Your task to perform on an android device: turn off notifications settings in the gmail app Image 0: 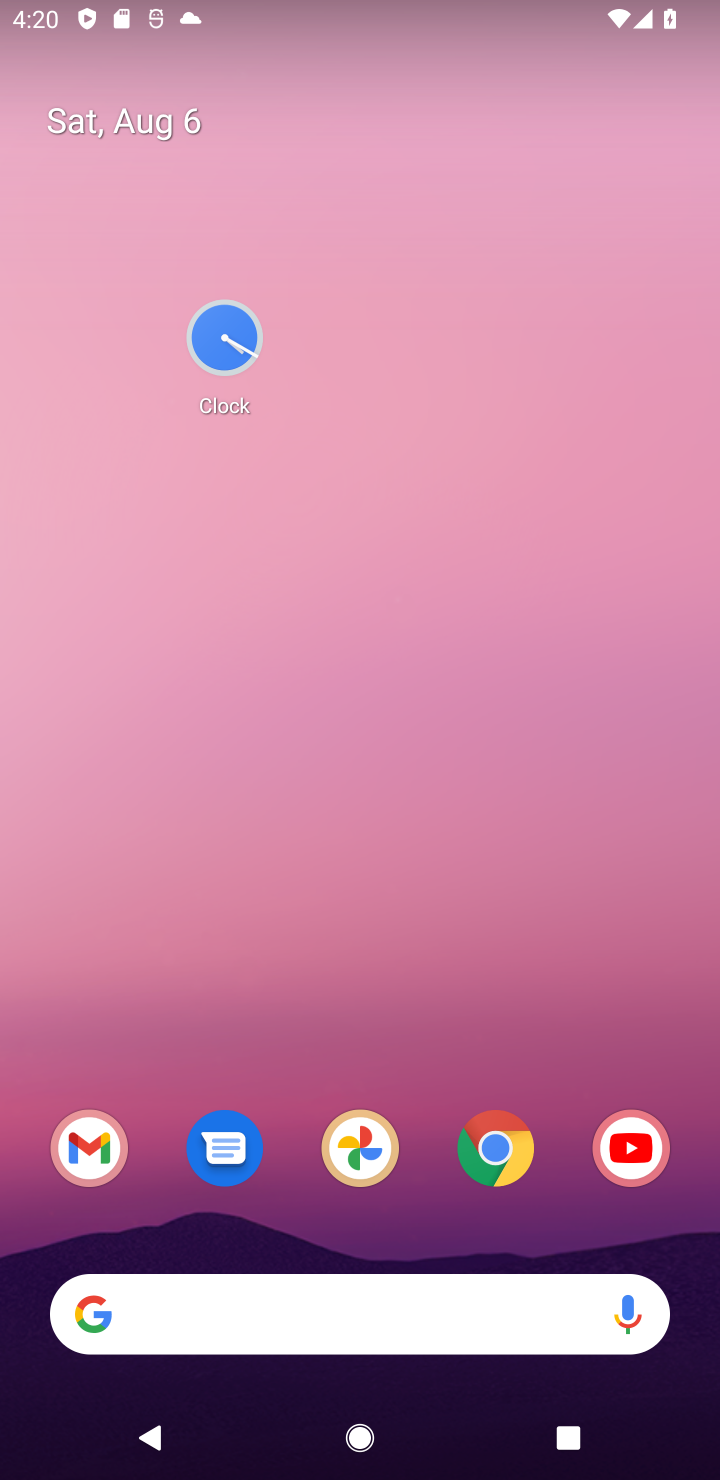
Step 0: drag from (408, 1238) to (401, 5)
Your task to perform on an android device: turn off notifications settings in the gmail app Image 1: 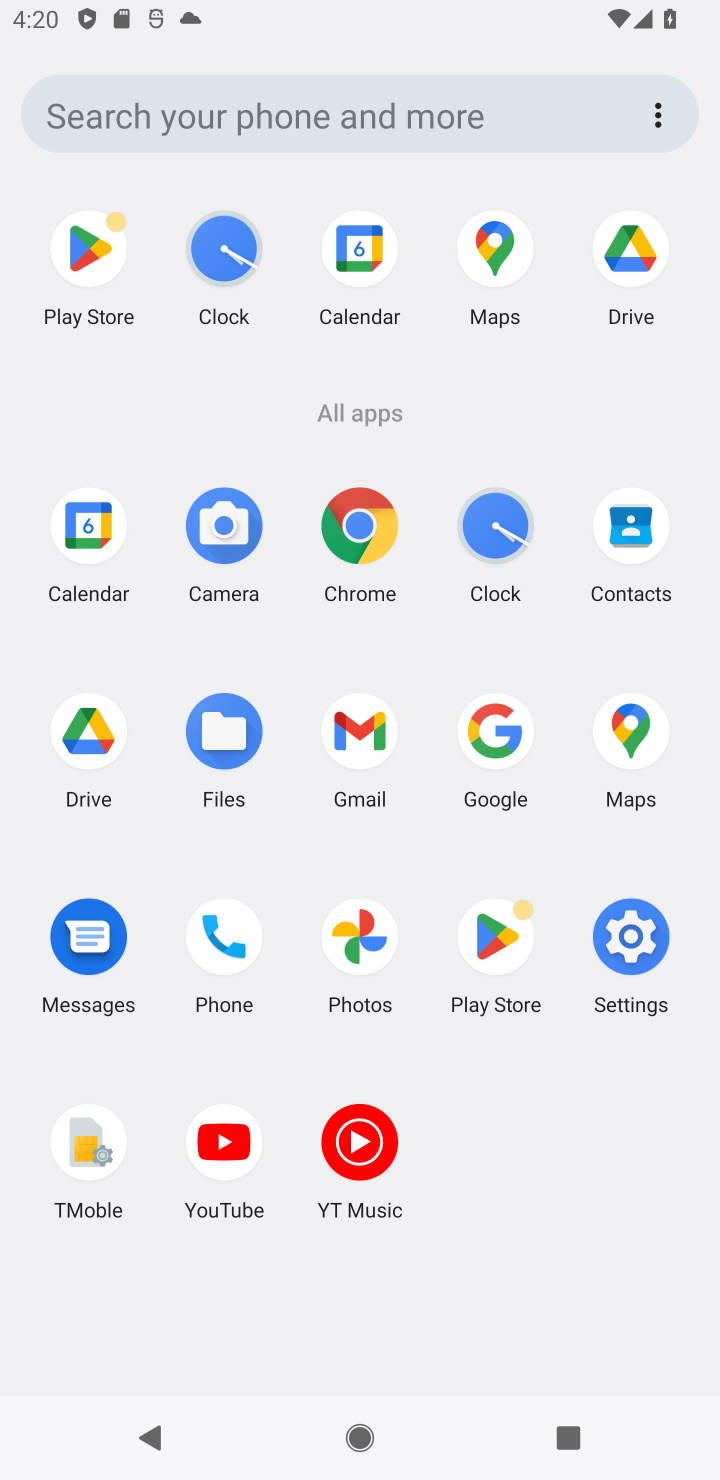
Step 1: click (350, 733)
Your task to perform on an android device: turn off notifications settings in the gmail app Image 2: 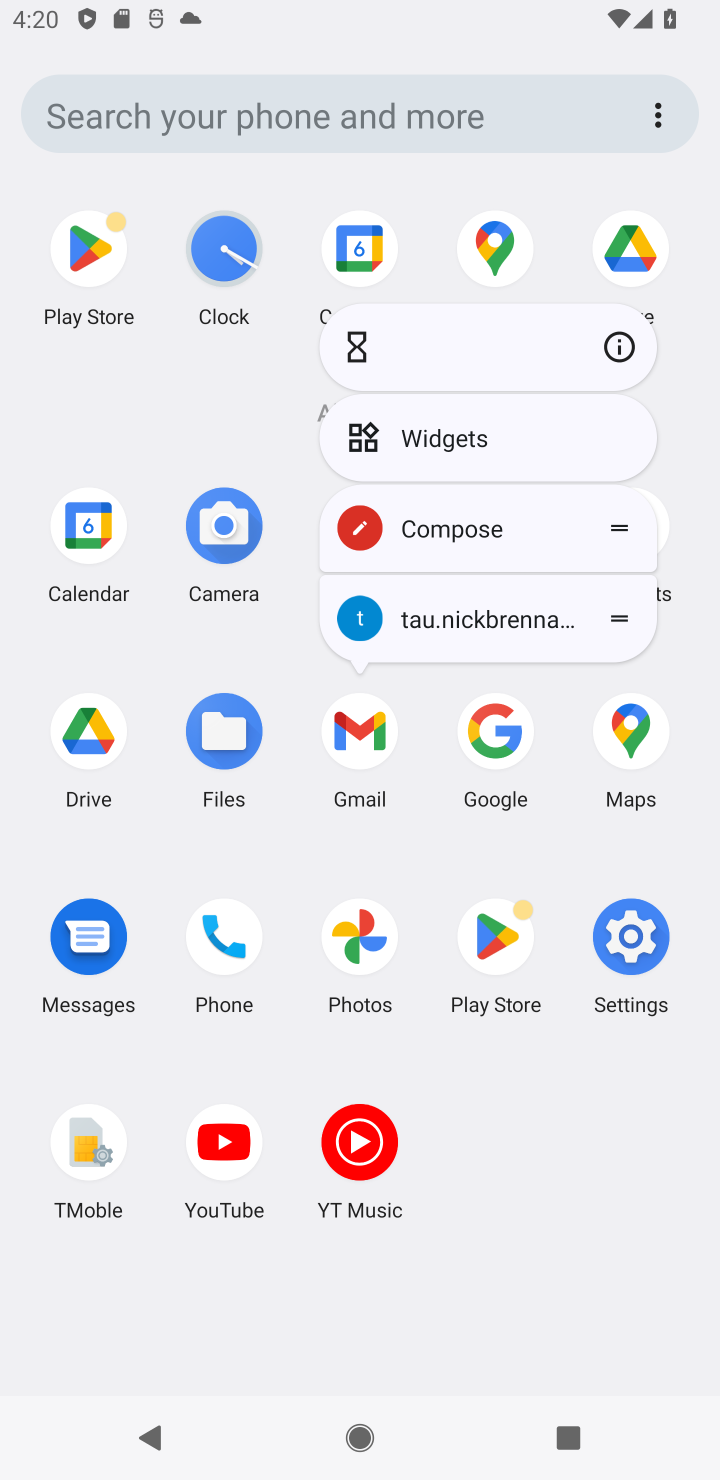
Step 2: click (627, 336)
Your task to perform on an android device: turn off notifications settings in the gmail app Image 3: 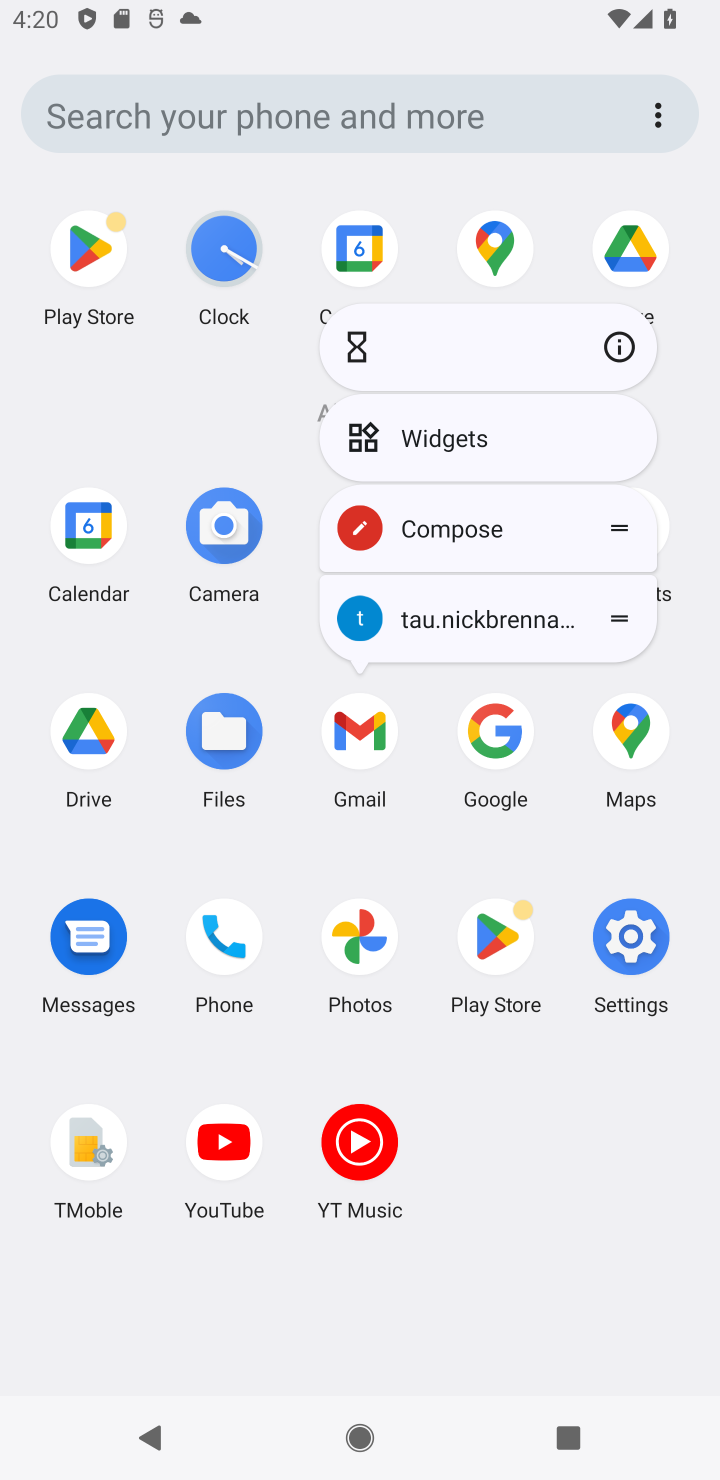
Step 3: click (596, 355)
Your task to perform on an android device: turn off notifications settings in the gmail app Image 4: 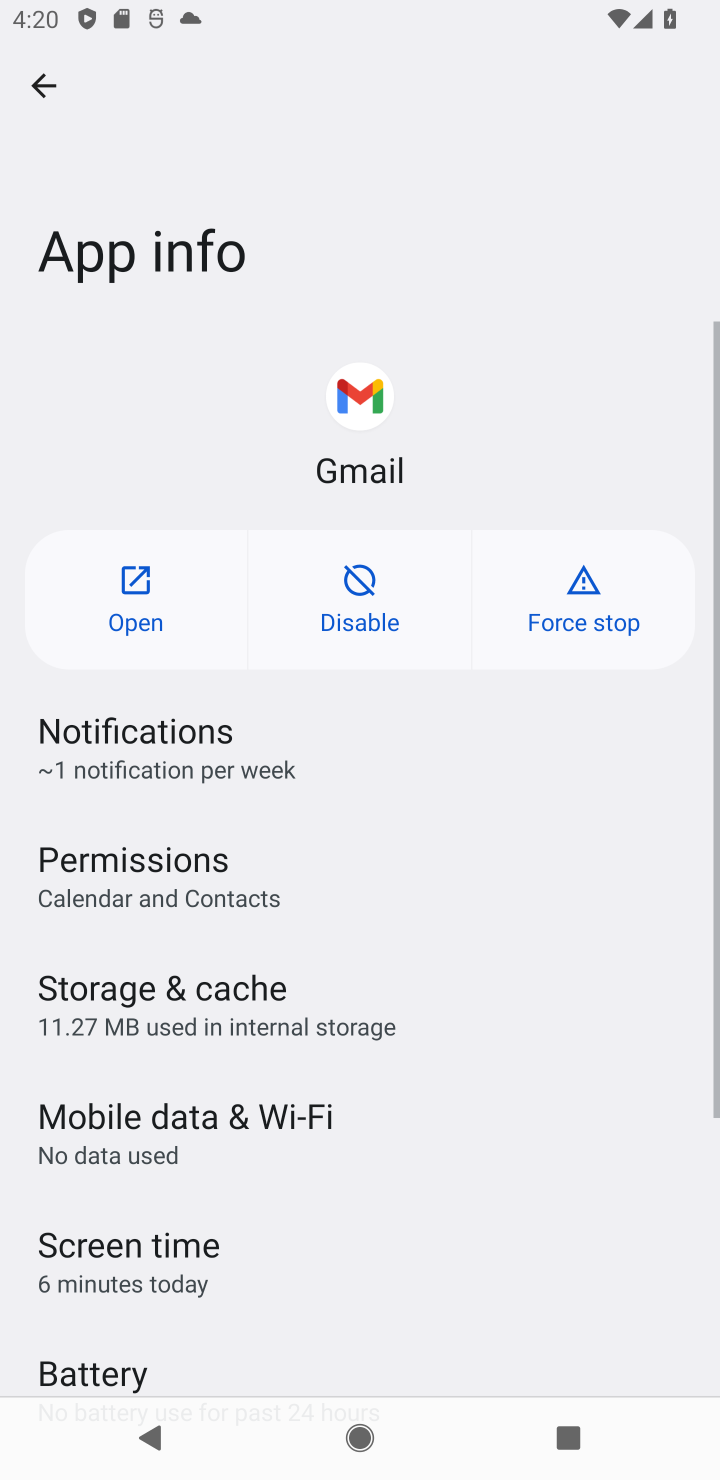
Step 4: click (171, 572)
Your task to perform on an android device: turn off notifications settings in the gmail app Image 5: 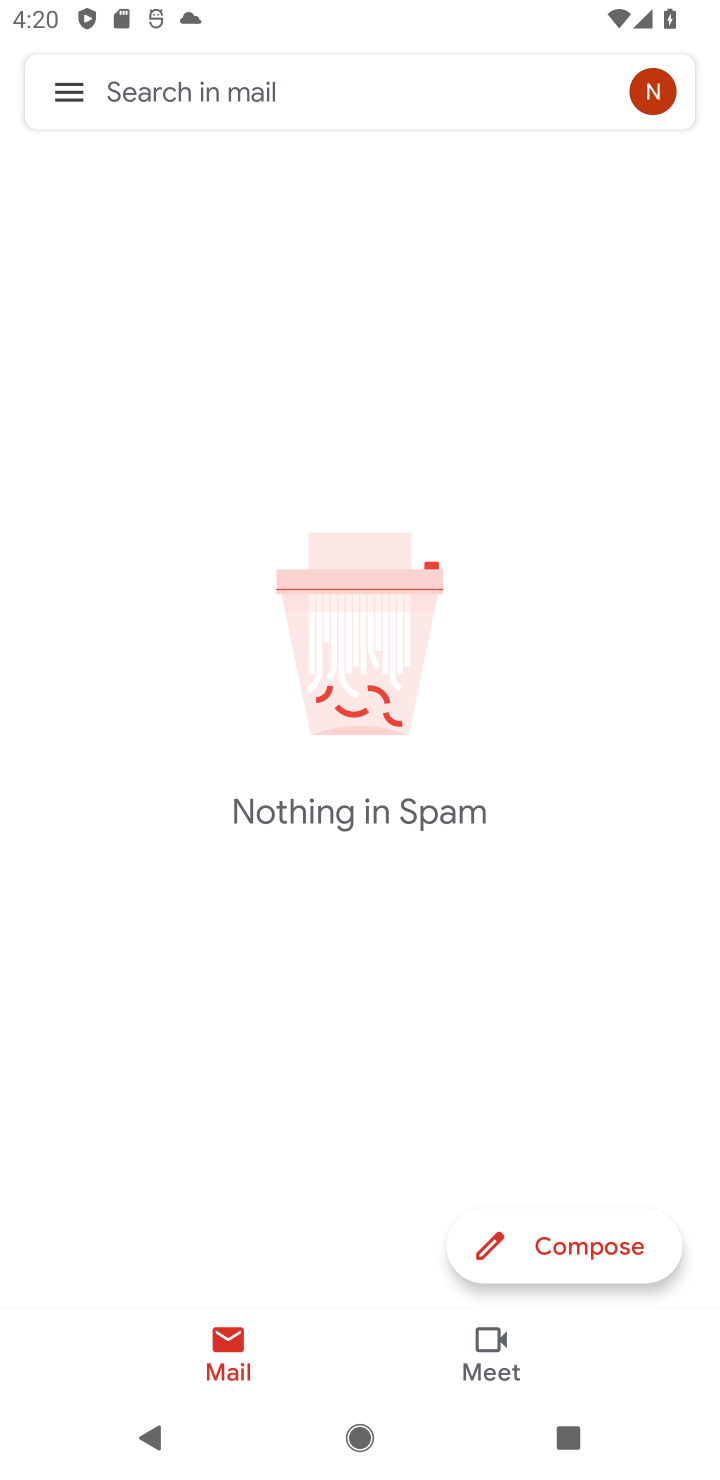
Step 5: drag from (312, 1039) to (425, 431)
Your task to perform on an android device: turn off notifications settings in the gmail app Image 6: 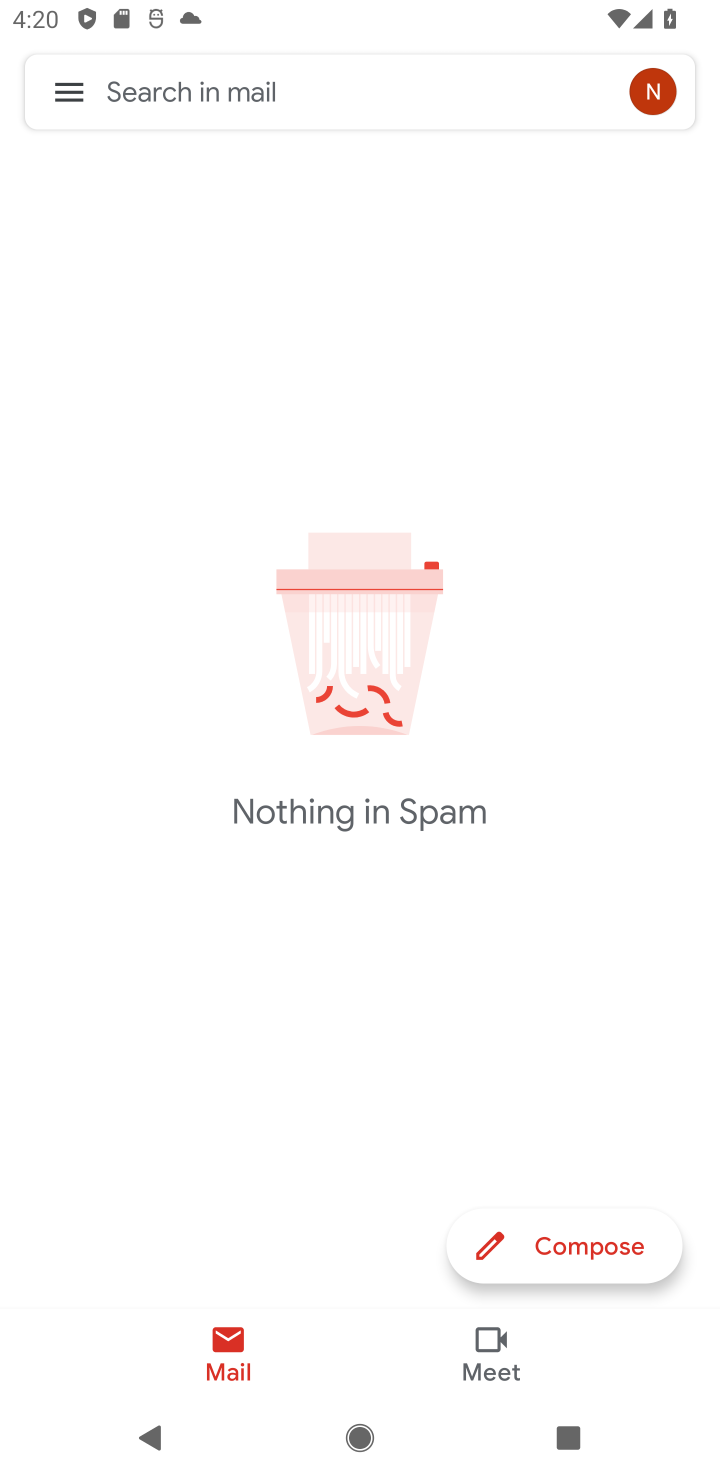
Step 6: click (81, 67)
Your task to perform on an android device: turn off notifications settings in the gmail app Image 7: 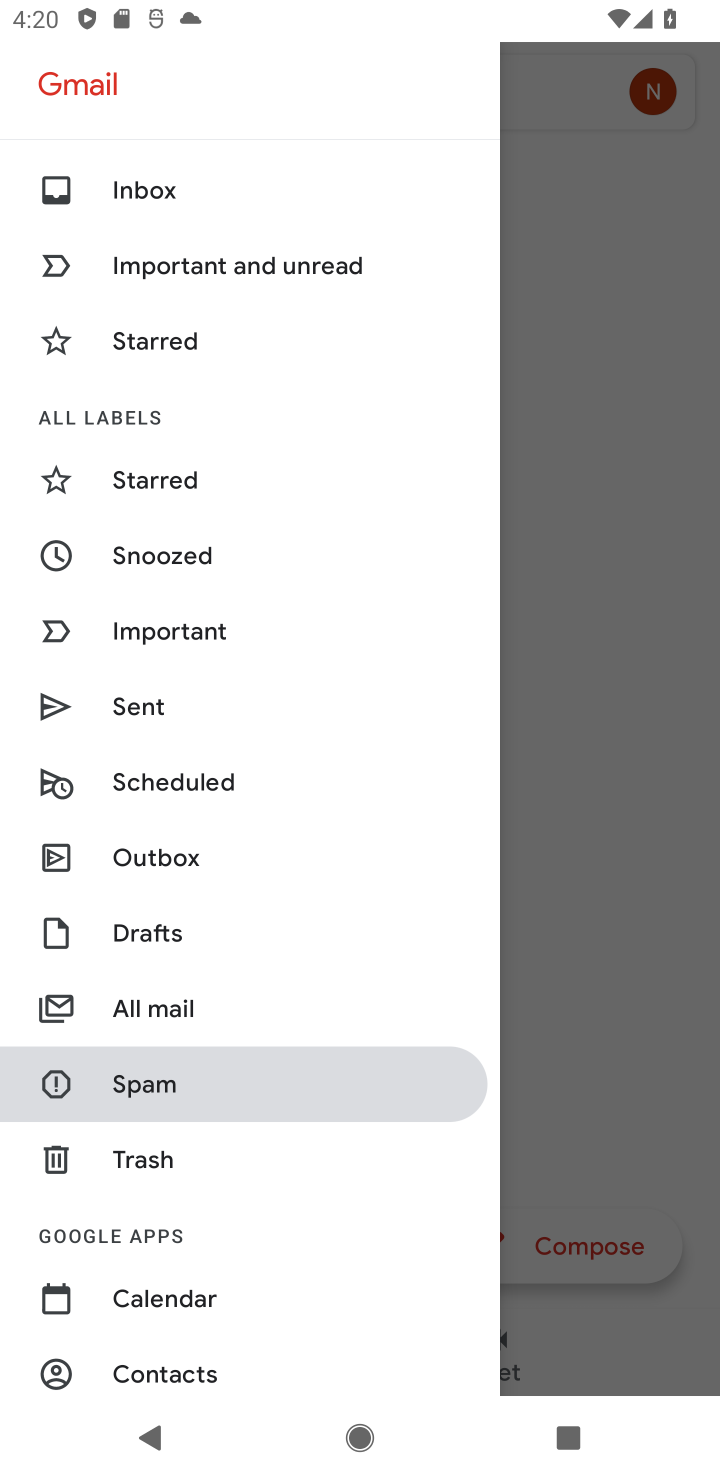
Step 7: drag from (253, 986) to (300, 545)
Your task to perform on an android device: turn off notifications settings in the gmail app Image 8: 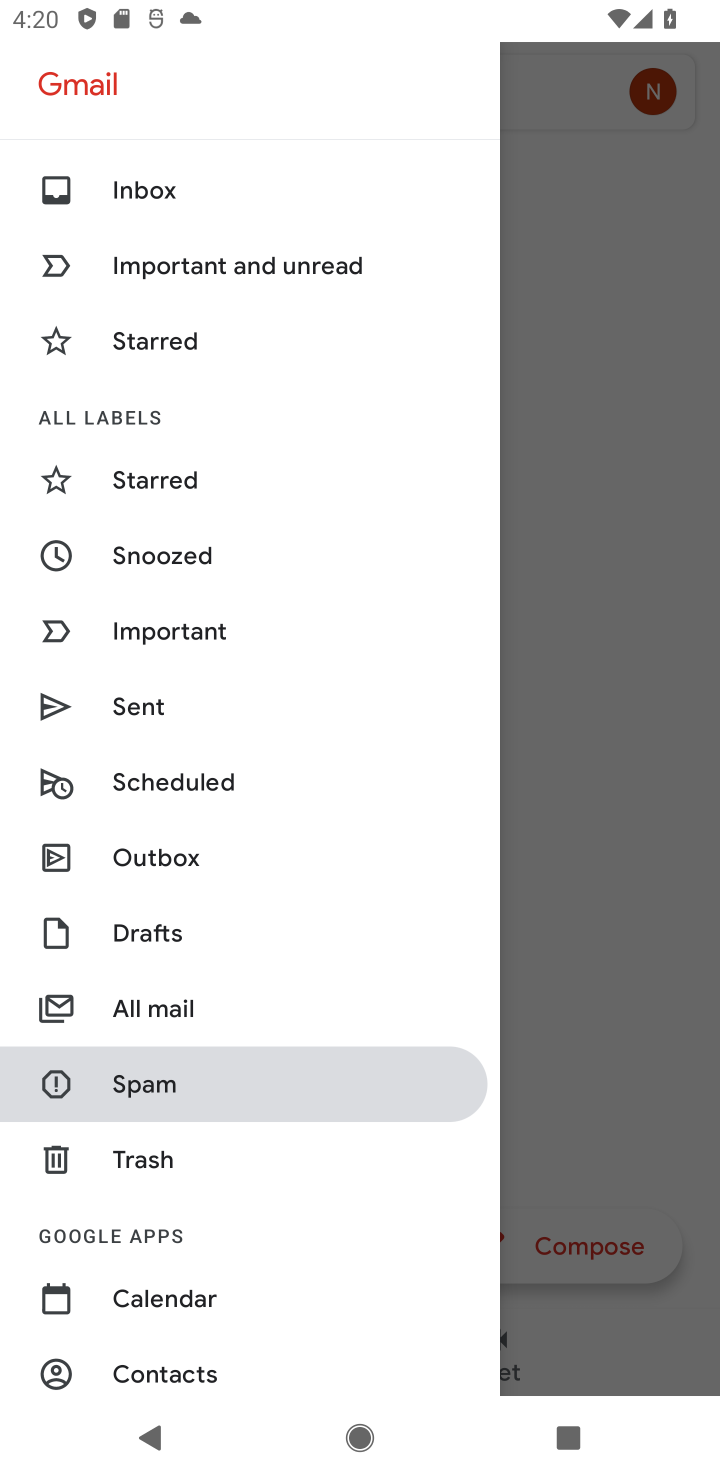
Step 8: drag from (194, 1249) to (265, 308)
Your task to perform on an android device: turn off notifications settings in the gmail app Image 9: 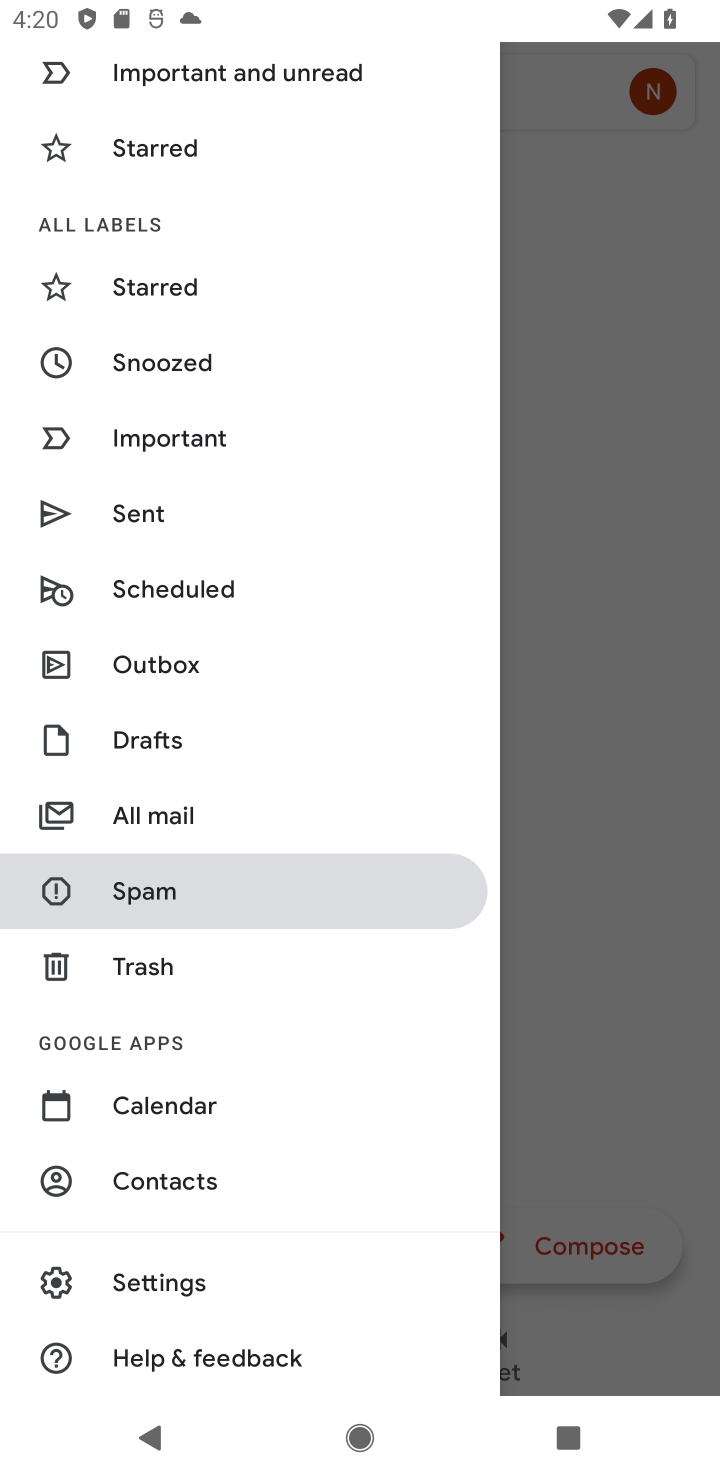
Step 9: click (192, 1289)
Your task to perform on an android device: turn off notifications settings in the gmail app Image 10: 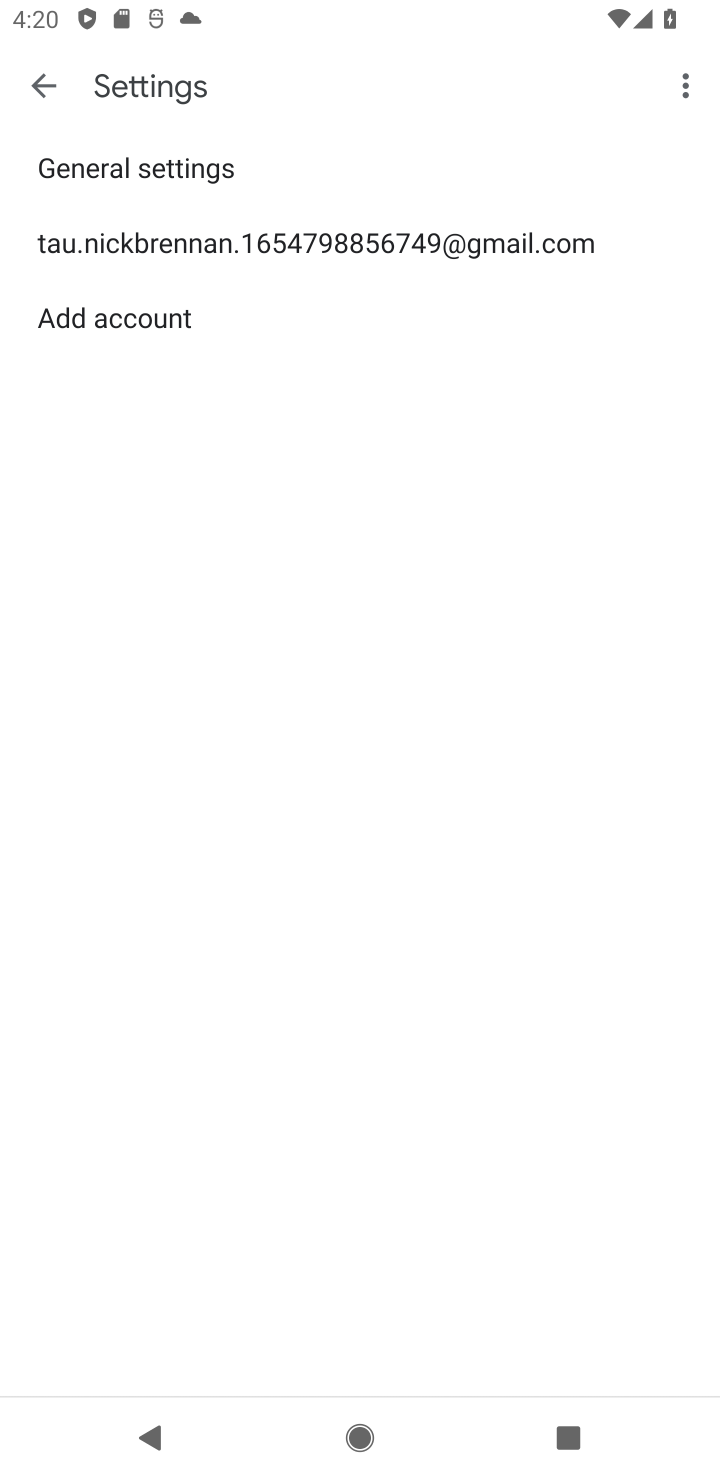
Step 10: click (317, 245)
Your task to perform on an android device: turn off notifications settings in the gmail app Image 11: 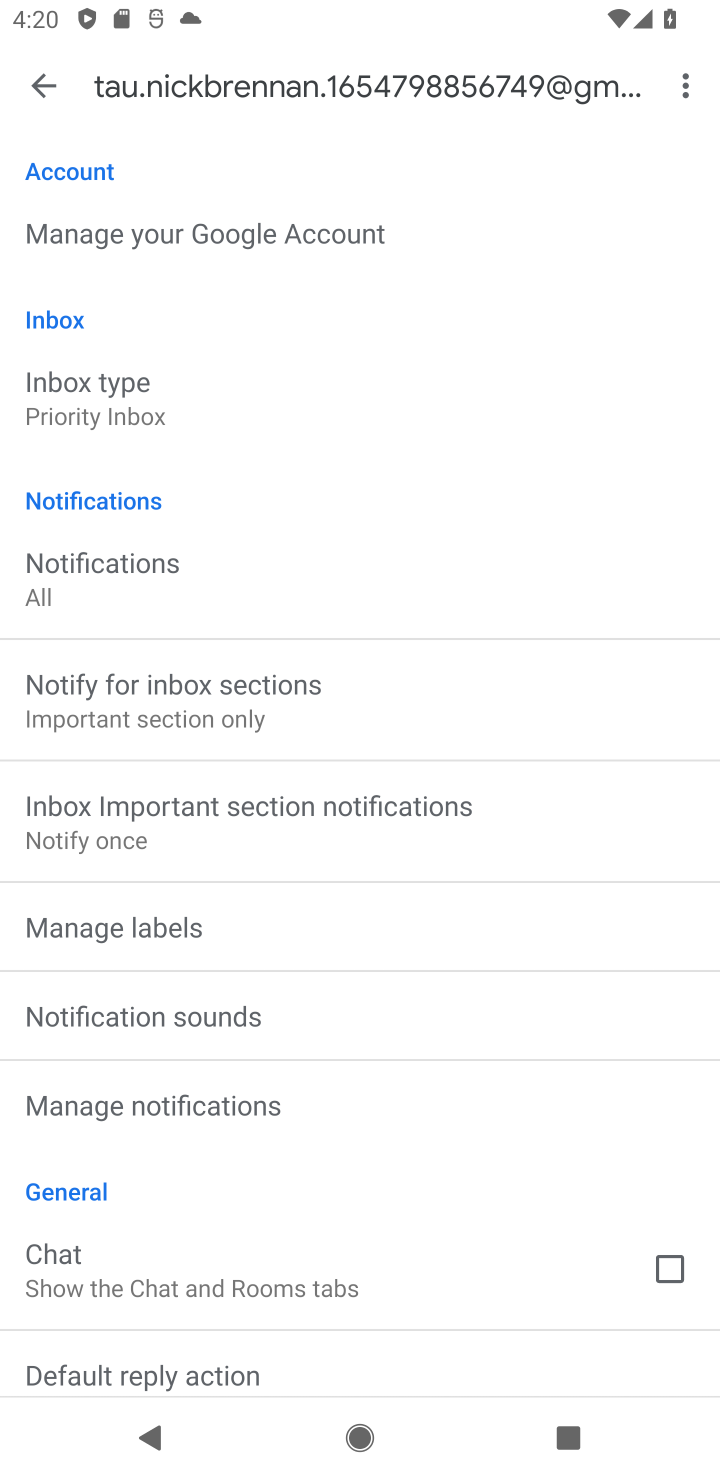
Step 11: drag from (276, 893) to (276, 597)
Your task to perform on an android device: turn off notifications settings in the gmail app Image 12: 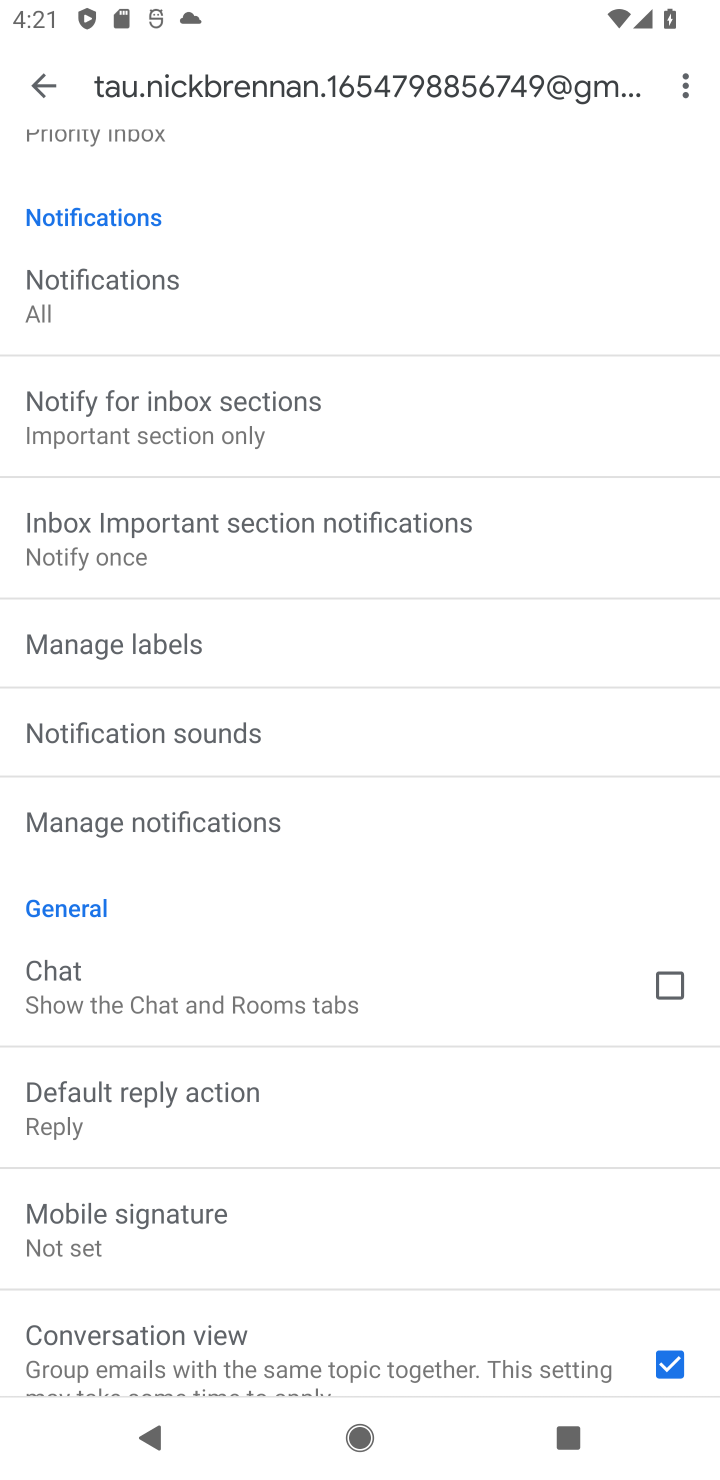
Step 12: drag from (334, 999) to (377, 674)
Your task to perform on an android device: turn off notifications settings in the gmail app Image 13: 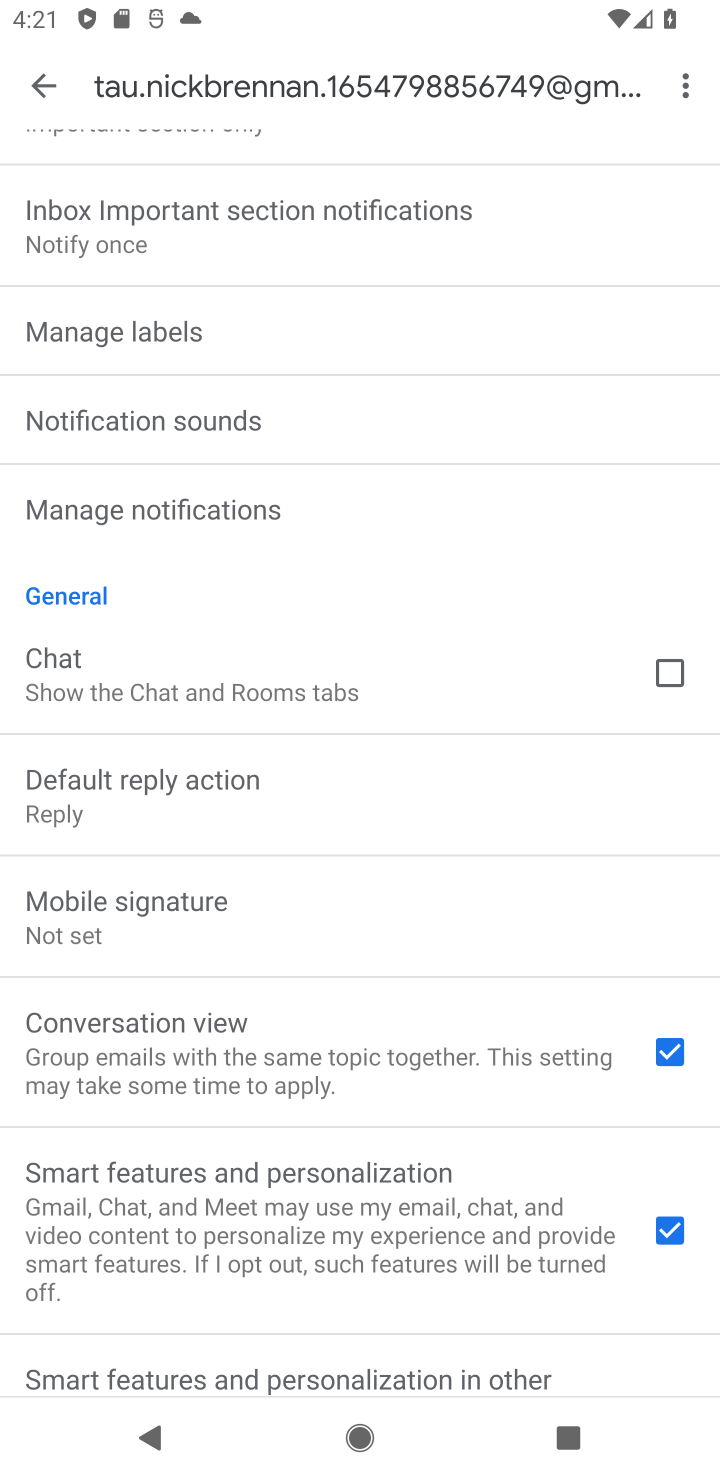
Step 13: click (223, 501)
Your task to perform on an android device: turn off notifications settings in the gmail app Image 14: 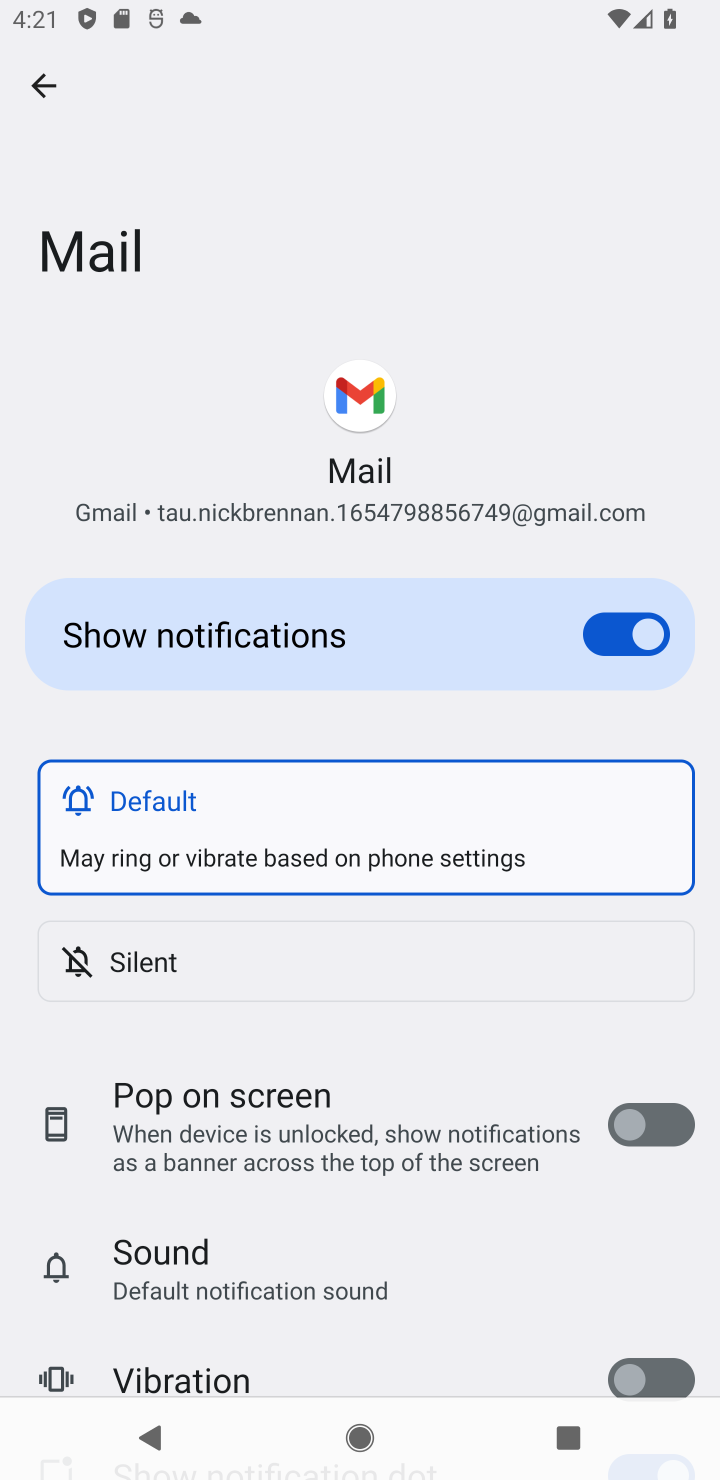
Step 14: drag from (248, 1050) to (261, 508)
Your task to perform on an android device: turn off notifications settings in the gmail app Image 15: 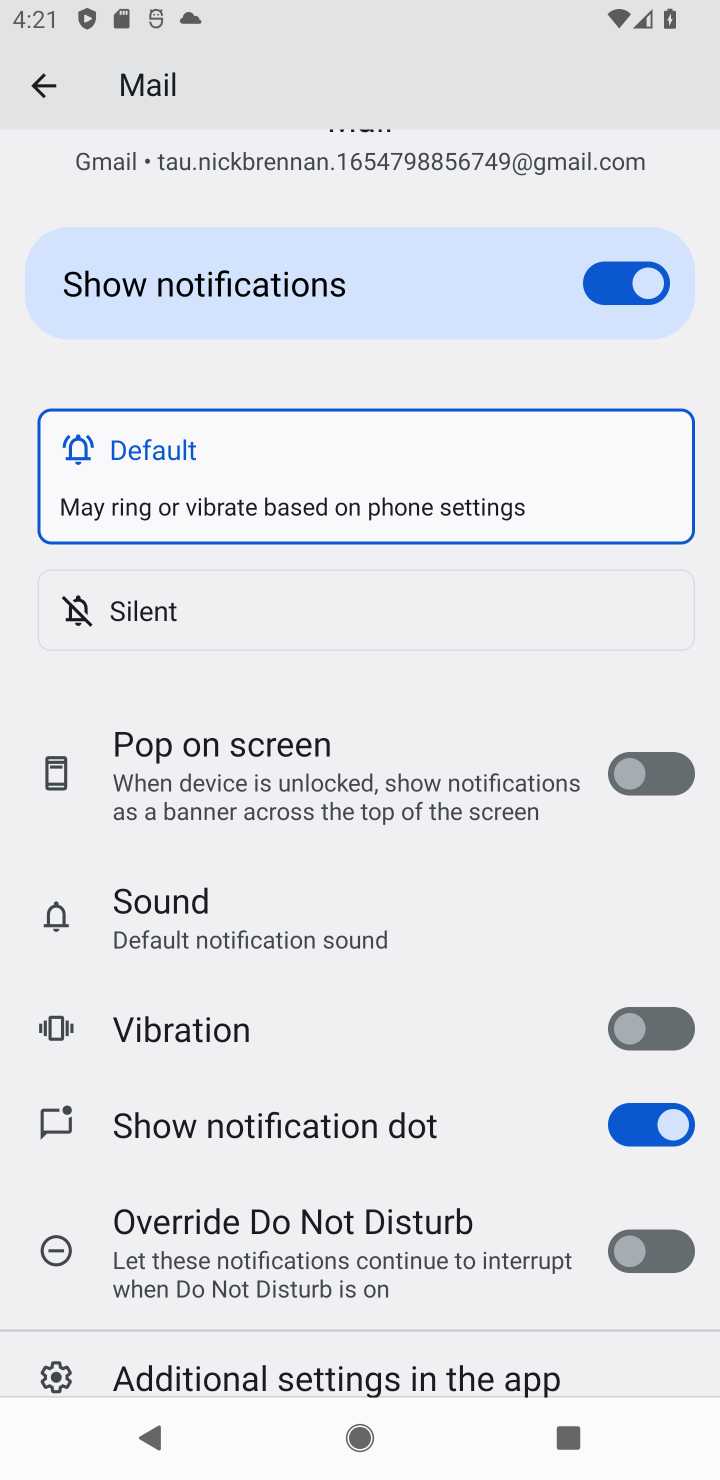
Step 15: click (625, 274)
Your task to perform on an android device: turn off notifications settings in the gmail app Image 16: 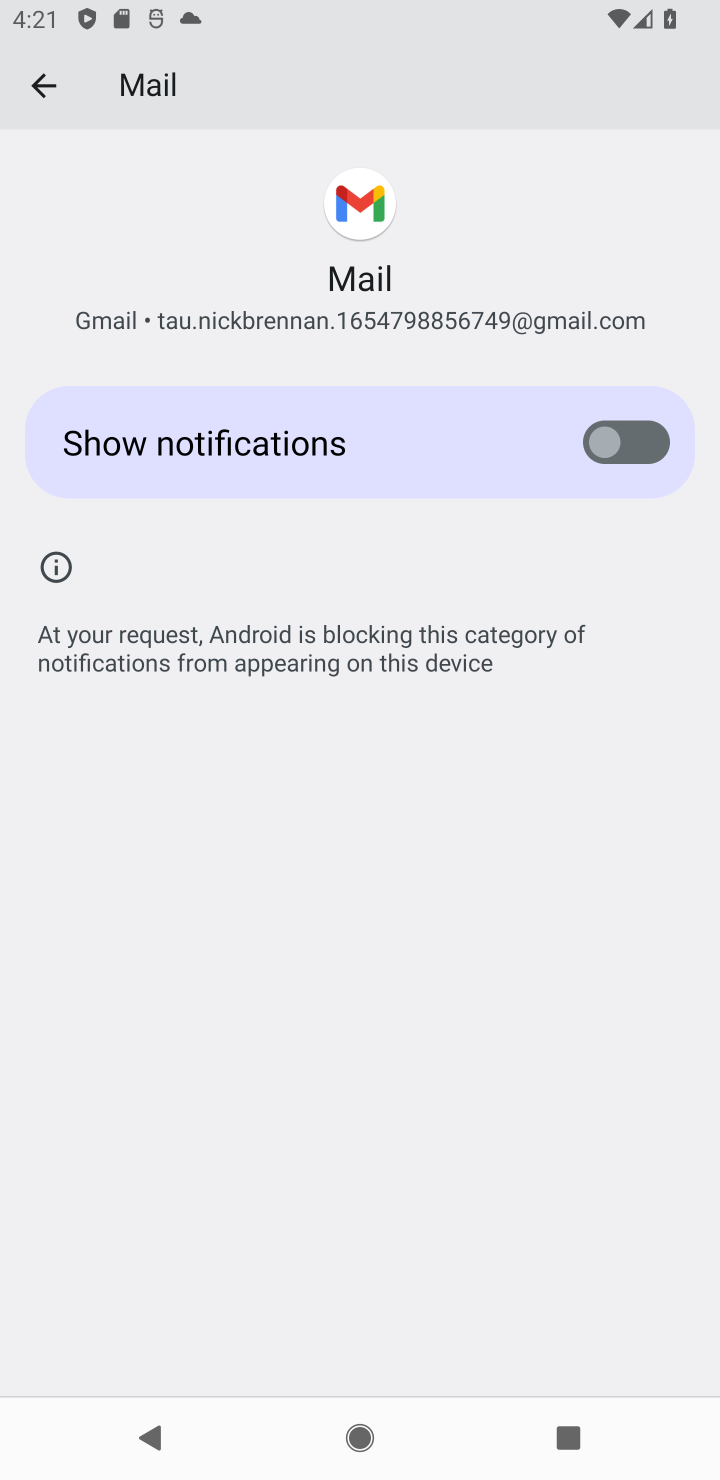
Step 16: task complete